Your task to perform on an android device: turn notification dots on Image 0: 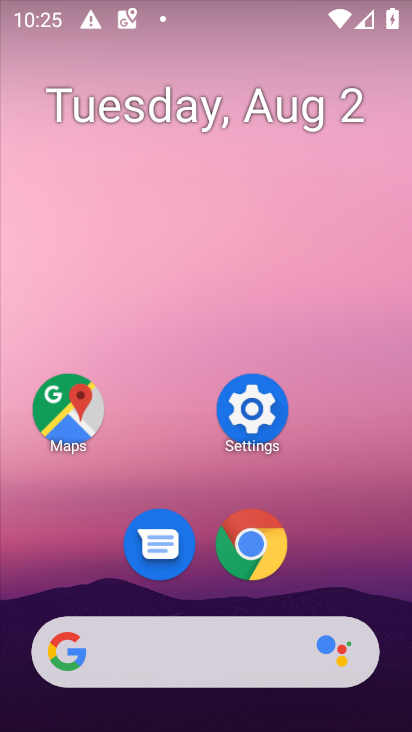
Step 0: click (250, 413)
Your task to perform on an android device: turn notification dots on Image 1: 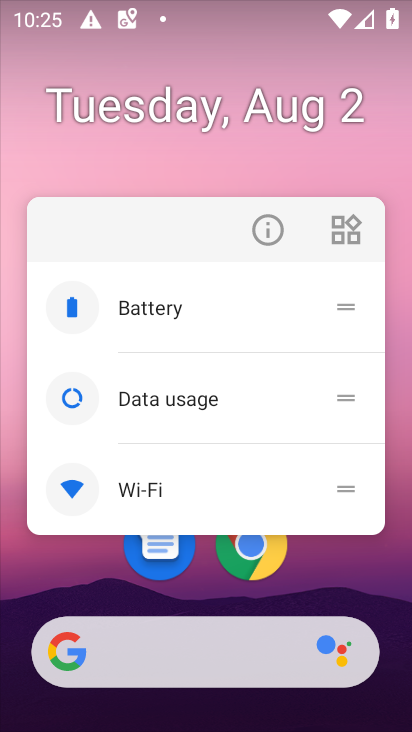
Step 1: click (356, 545)
Your task to perform on an android device: turn notification dots on Image 2: 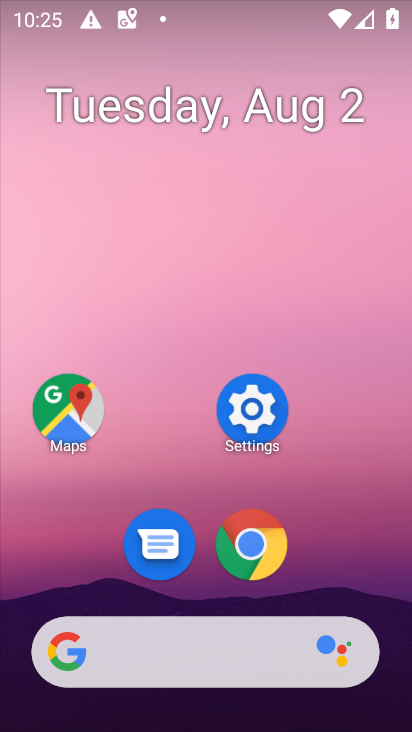
Step 2: click (253, 417)
Your task to perform on an android device: turn notification dots on Image 3: 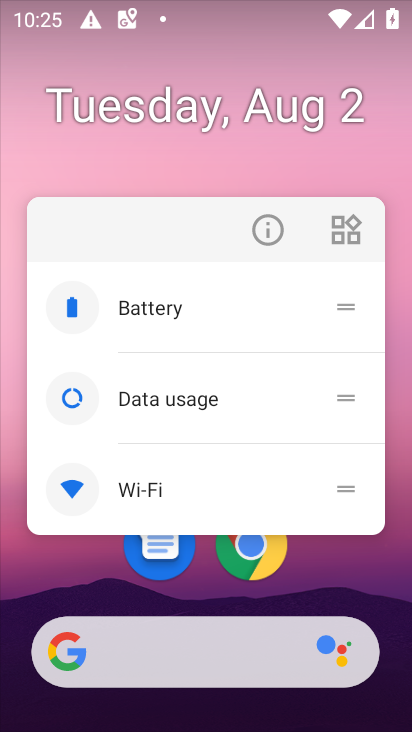
Step 3: click (399, 541)
Your task to perform on an android device: turn notification dots on Image 4: 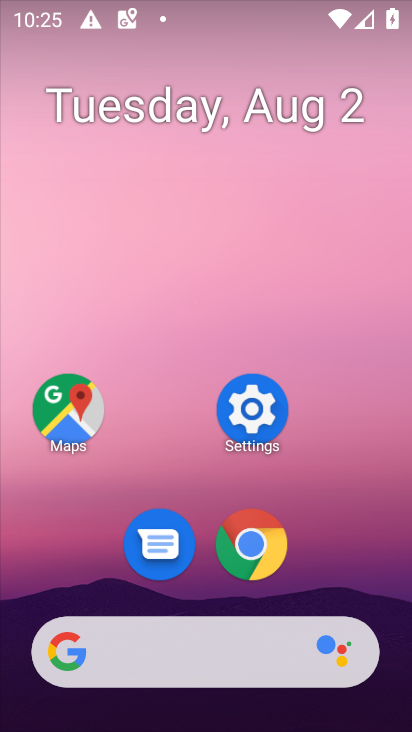
Step 4: click (260, 405)
Your task to perform on an android device: turn notification dots on Image 5: 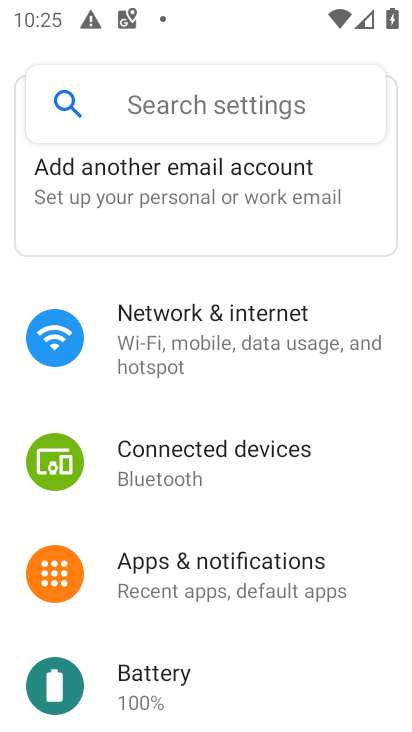
Step 5: click (220, 569)
Your task to perform on an android device: turn notification dots on Image 6: 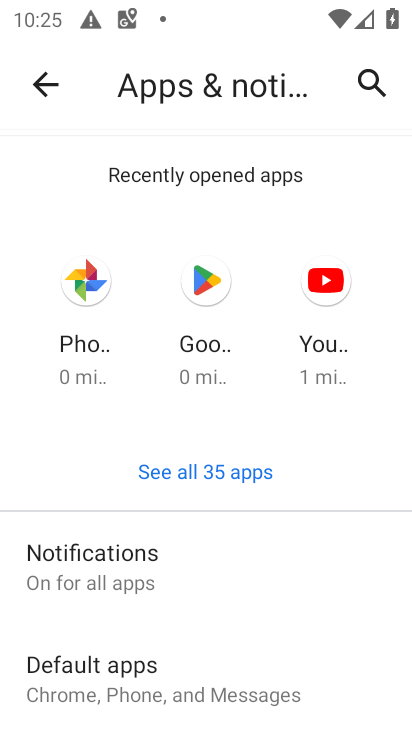
Step 6: click (134, 569)
Your task to perform on an android device: turn notification dots on Image 7: 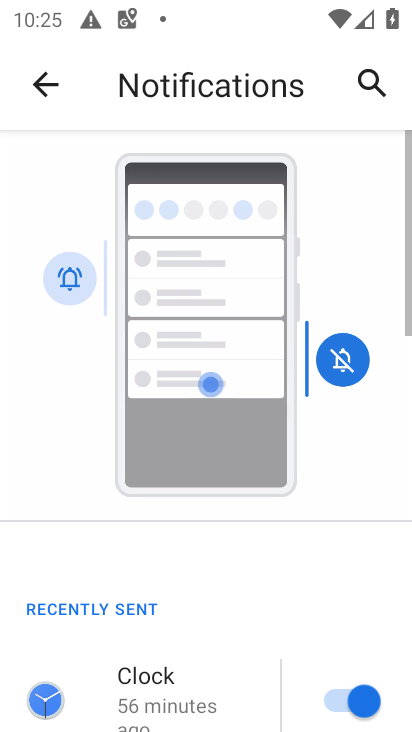
Step 7: drag from (223, 647) to (344, 73)
Your task to perform on an android device: turn notification dots on Image 8: 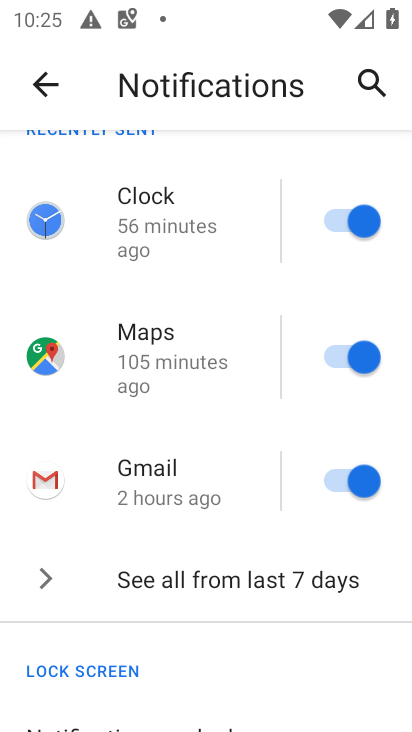
Step 8: drag from (254, 462) to (310, 77)
Your task to perform on an android device: turn notification dots on Image 9: 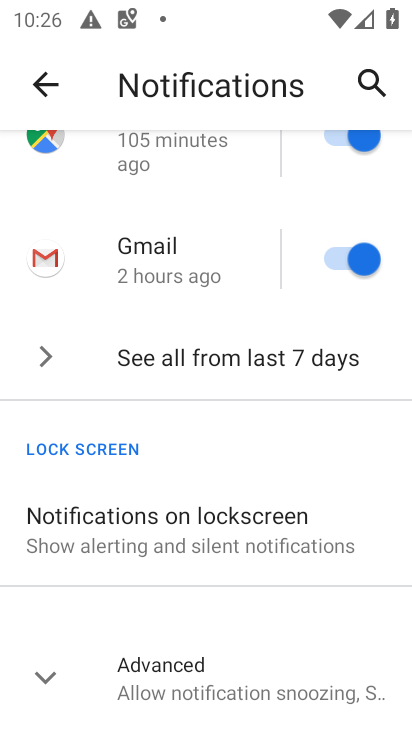
Step 9: click (161, 673)
Your task to perform on an android device: turn notification dots on Image 10: 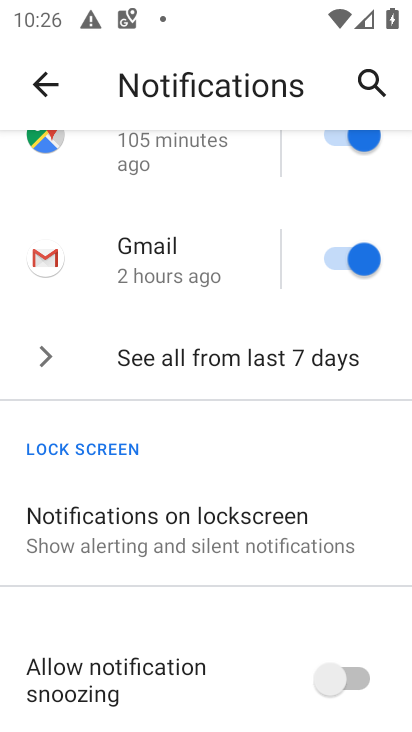
Step 10: task complete